Your task to perform on an android device: turn off priority inbox in the gmail app Image 0: 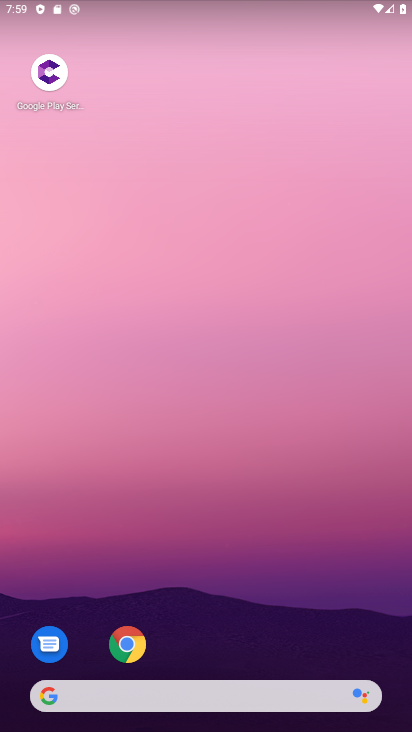
Step 0: drag from (23, 709) to (379, 0)
Your task to perform on an android device: turn off priority inbox in the gmail app Image 1: 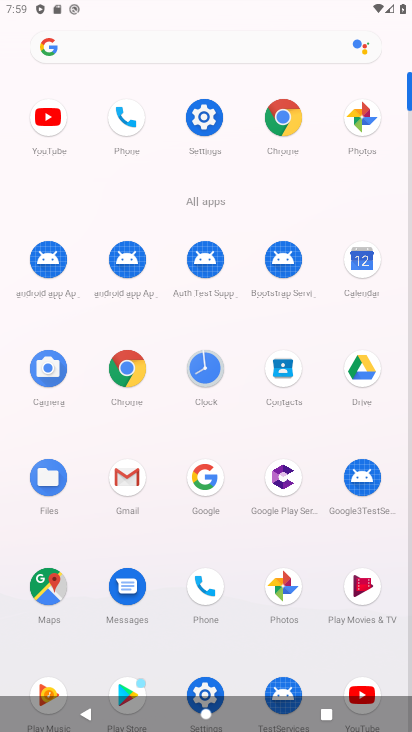
Step 1: click (125, 475)
Your task to perform on an android device: turn off priority inbox in the gmail app Image 2: 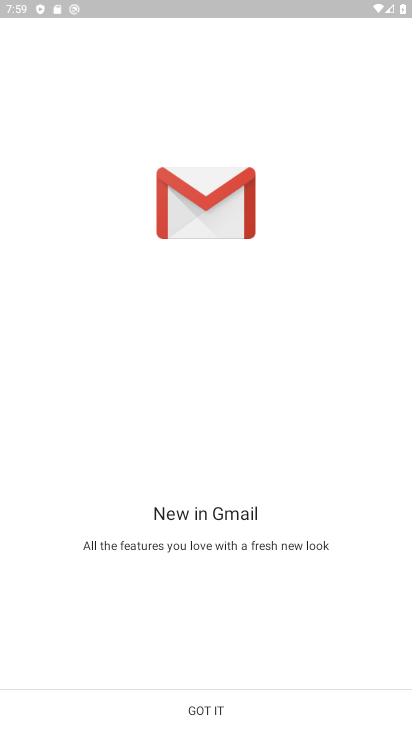
Step 2: click (219, 709)
Your task to perform on an android device: turn off priority inbox in the gmail app Image 3: 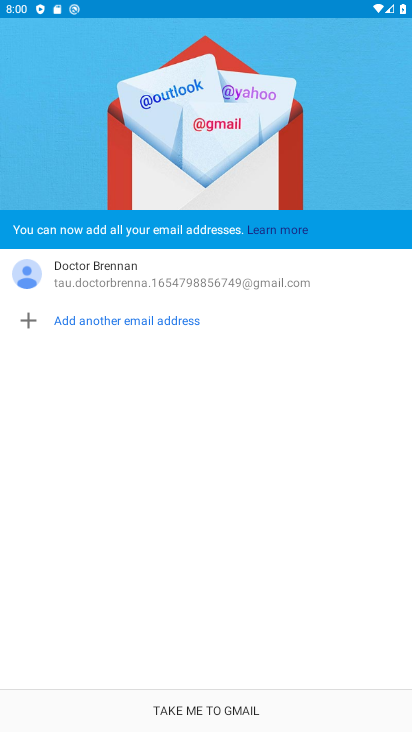
Step 3: click (197, 706)
Your task to perform on an android device: turn off priority inbox in the gmail app Image 4: 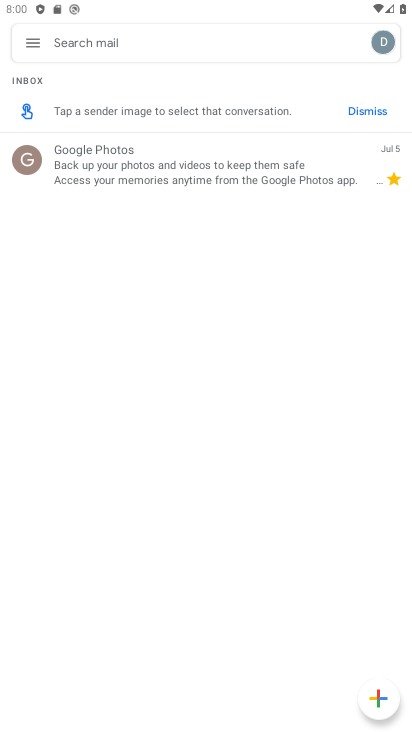
Step 4: click (31, 44)
Your task to perform on an android device: turn off priority inbox in the gmail app Image 5: 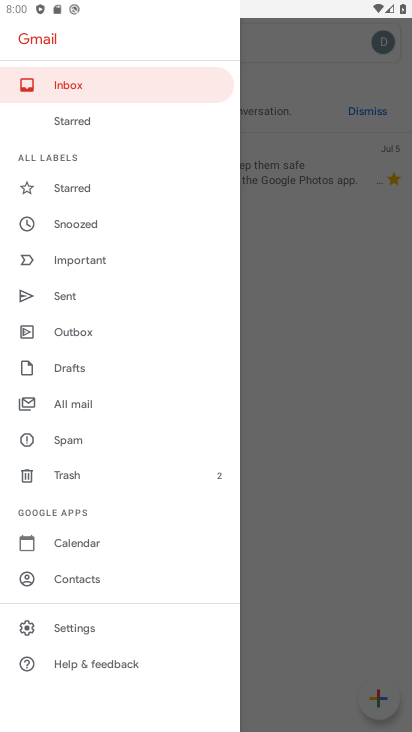
Step 5: click (61, 621)
Your task to perform on an android device: turn off priority inbox in the gmail app Image 6: 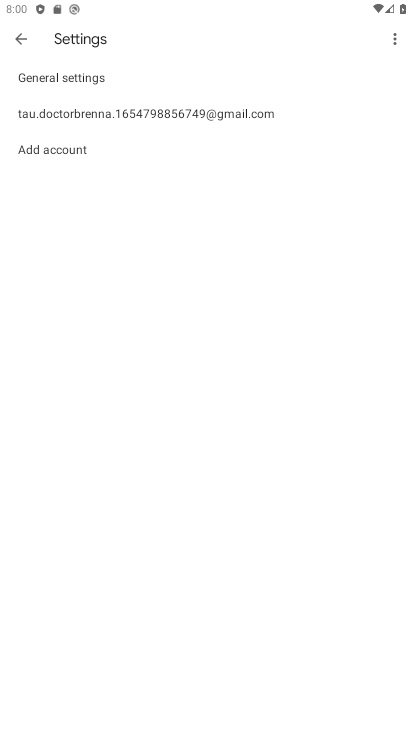
Step 6: click (72, 84)
Your task to perform on an android device: turn off priority inbox in the gmail app Image 7: 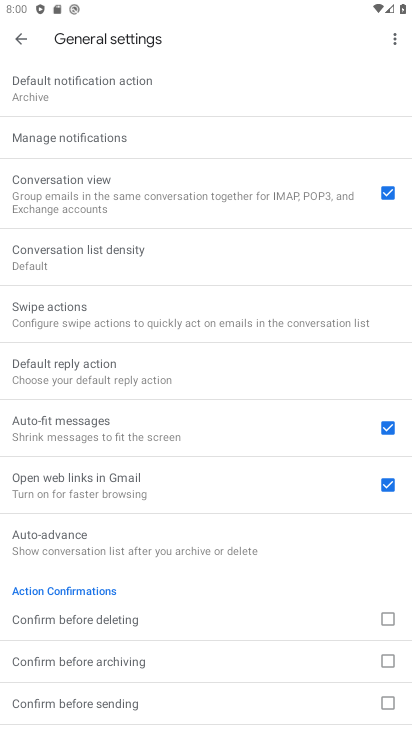
Step 7: click (14, 40)
Your task to perform on an android device: turn off priority inbox in the gmail app Image 8: 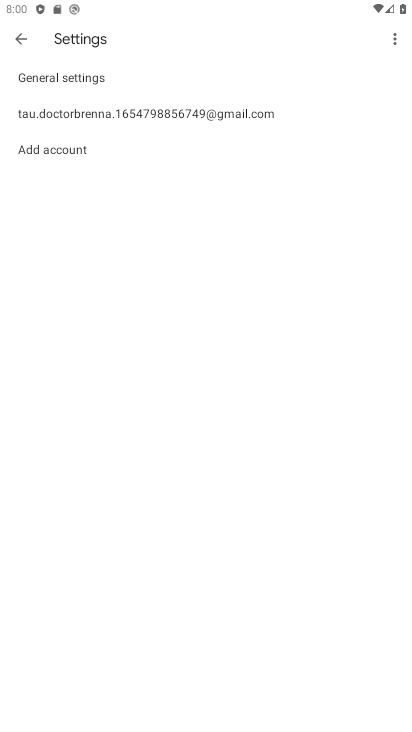
Step 8: click (102, 113)
Your task to perform on an android device: turn off priority inbox in the gmail app Image 9: 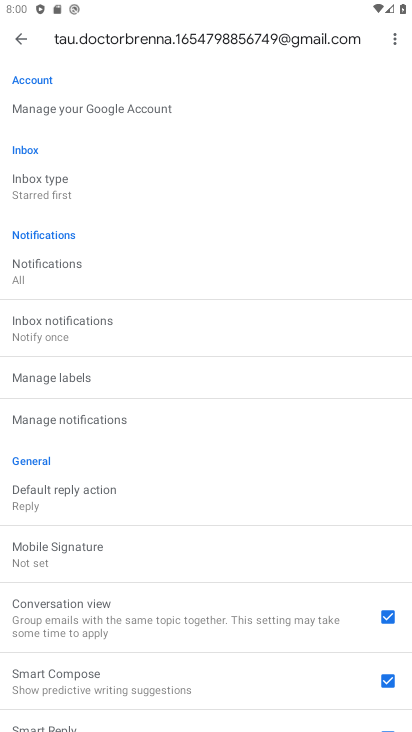
Step 9: click (57, 185)
Your task to perform on an android device: turn off priority inbox in the gmail app Image 10: 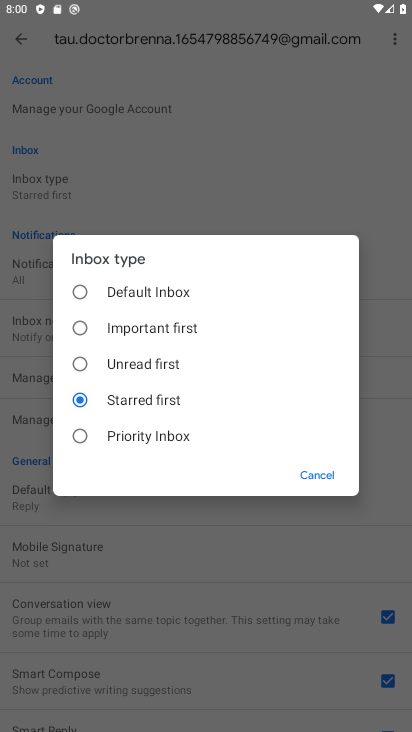
Step 10: click (87, 434)
Your task to perform on an android device: turn off priority inbox in the gmail app Image 11: 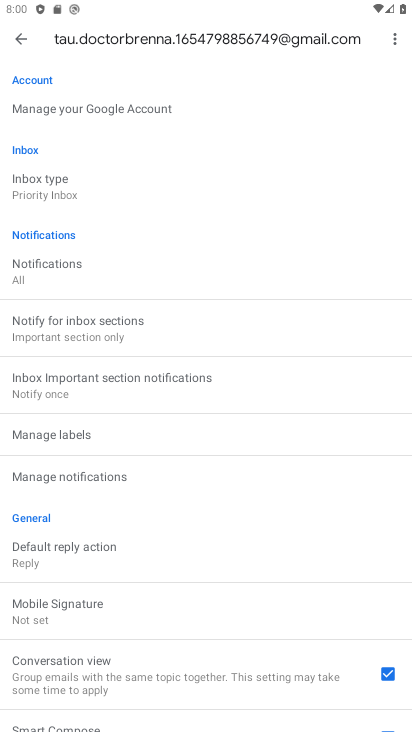
Step 11: task complete